Your task to perform on an android device: create a new album in the google photos Image 0: 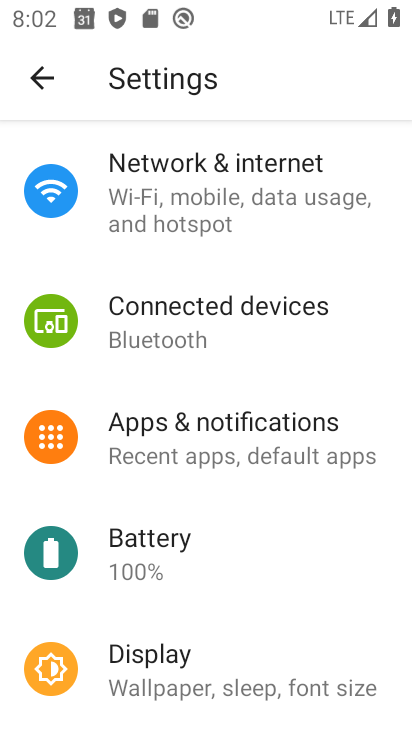
Step 0: press back button
Your task to perform on an android device: create a new album in the google photos Image 1: 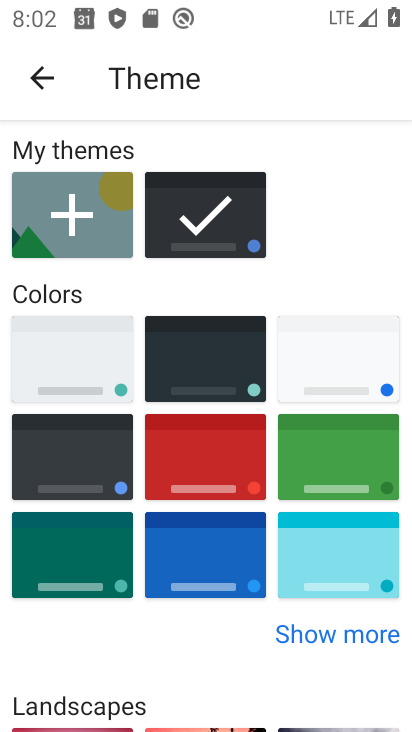
Step 1: press back button
Your task to perform on an android device: create a new album in the google photos Image 2: 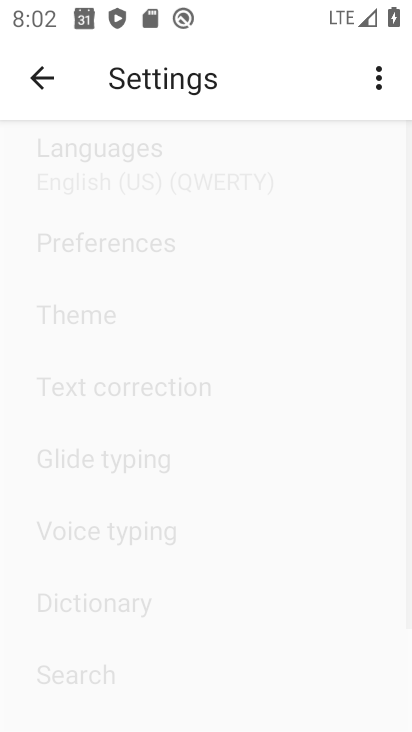
Step 2: press back button
Your task to perform on an android device: create a new album in the google photos Image 3: 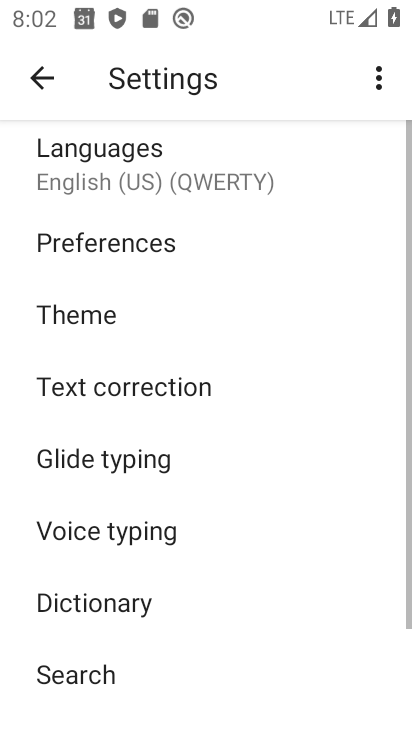
Step 3: press back button
Your task to perform on an android device: create a new album in the google photos Image 4: 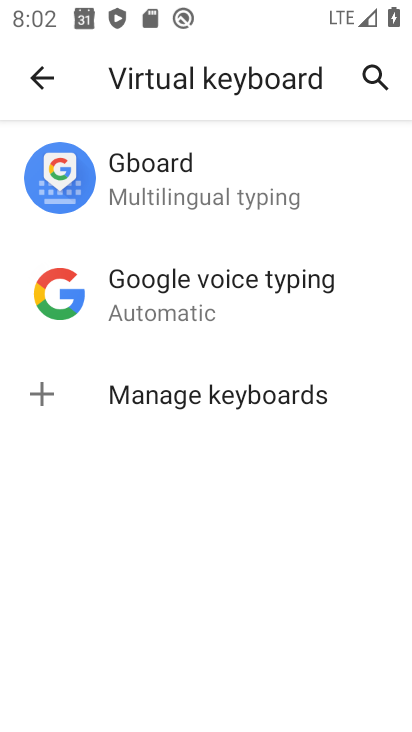
Step 4: press back button
Your task to perform on an android device: create a new album in the google photos Image 5: 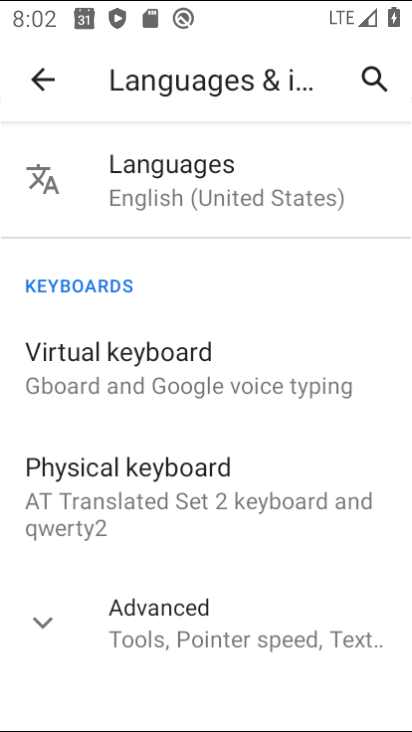
Step 5: press back button
Your task to perform on an android device: create a new album in the google photos Image 6: 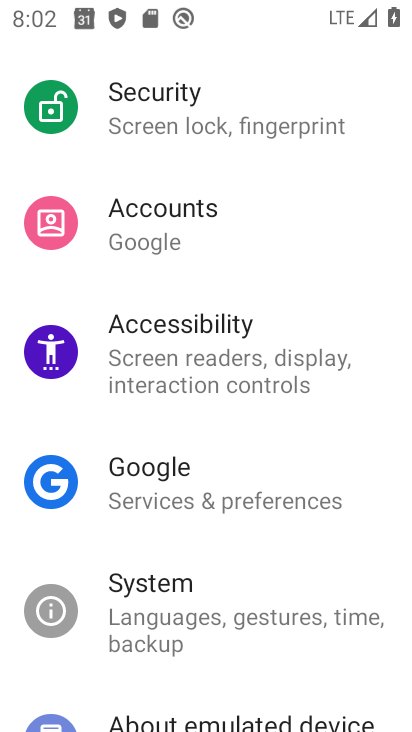
Step 6: press home button
Your task to perform on an android device: create a new album in the google photos Image 7: 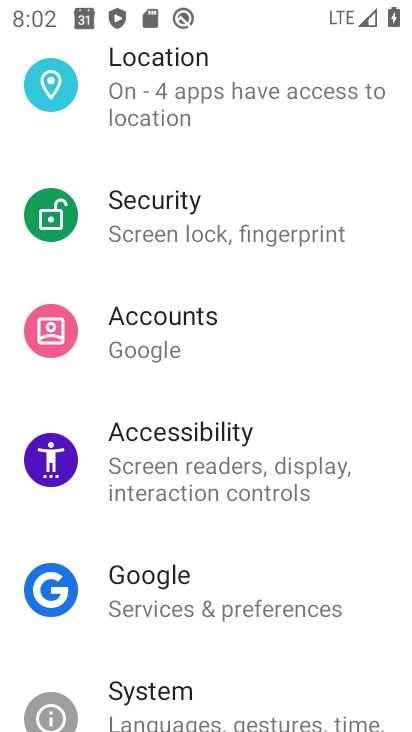
Step 7: press home button
Your task to perform on an android device: create a new album in the google photos Image 8: 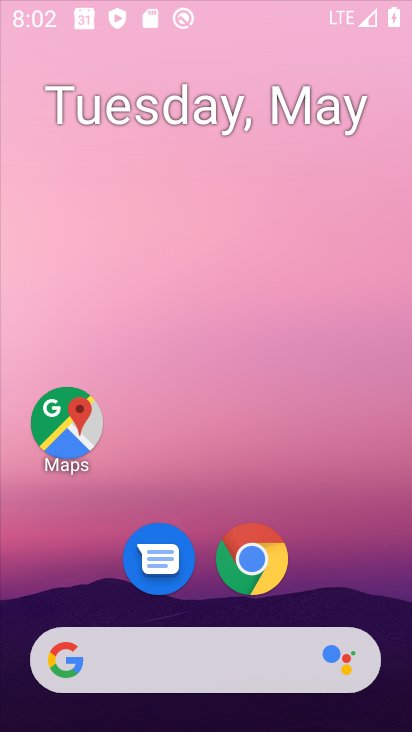
Step 8: press home button
Your task to perform on an android device: create a new album in the google photos Image 9: 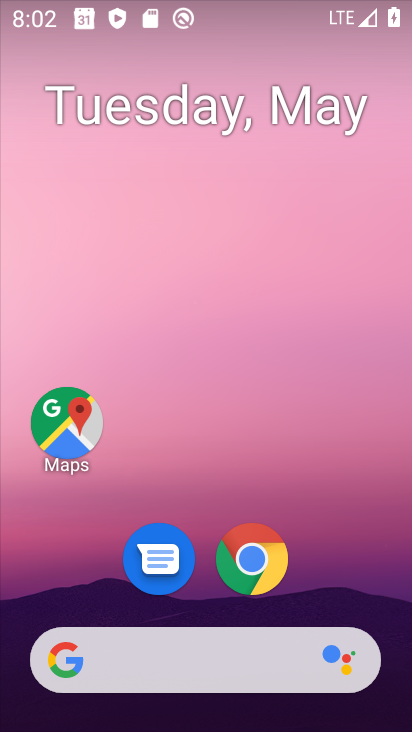
Step 9: press home button
Your task to perform on an android device: create a new album in the google photos Image 10: 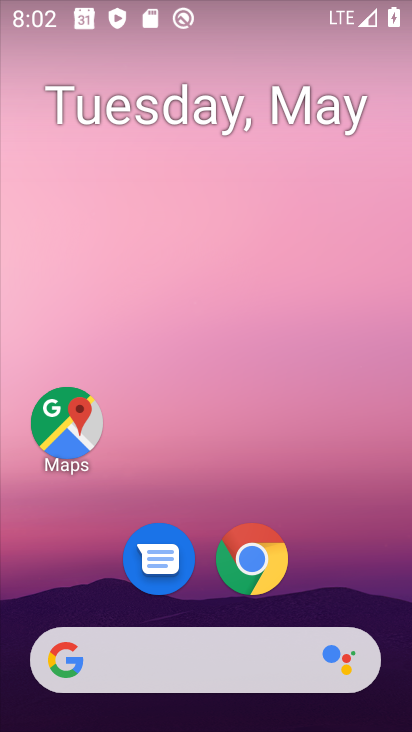
Step 10: drag from (383, 642) to (290, 297)
Your task to perform on an android device: create a new album in the google photos Image 11: 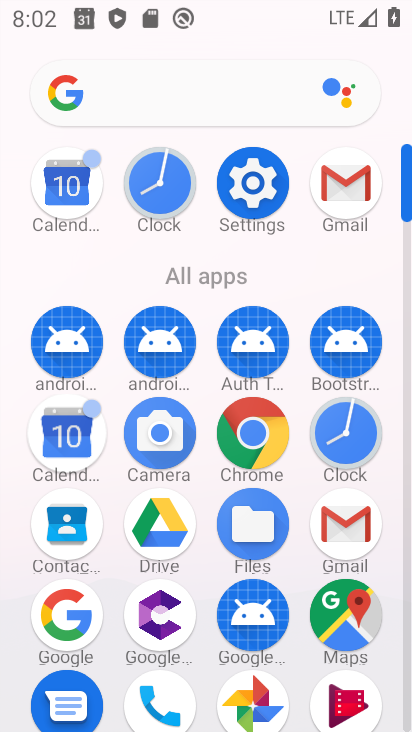
Step 11: click (252, 692)
Your task to perform on an android device: create a new album in the google photos Image 12: 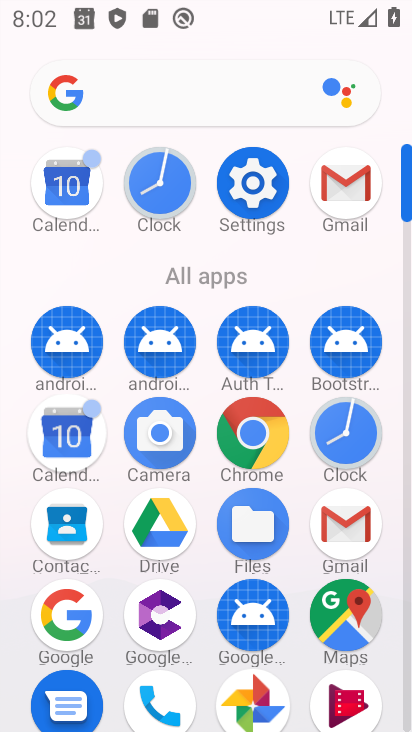
Step 12: click (255, 696)
Your task to perform on an android device: create a new album in the google photos Image 13: 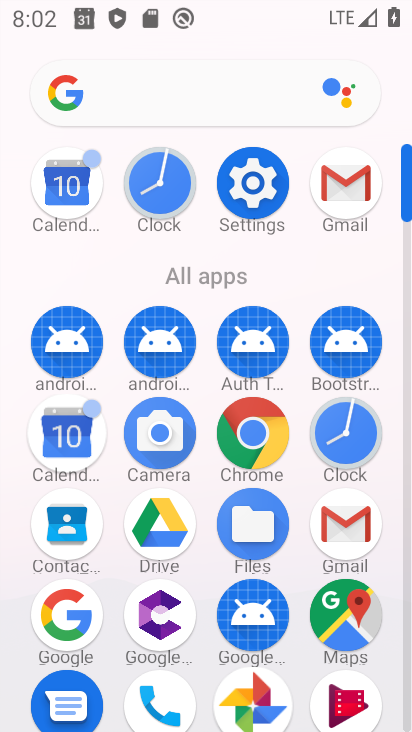
Step 13: click (254, 698)
Your task to perform on an android device: create a new album in the google photos Image 14: 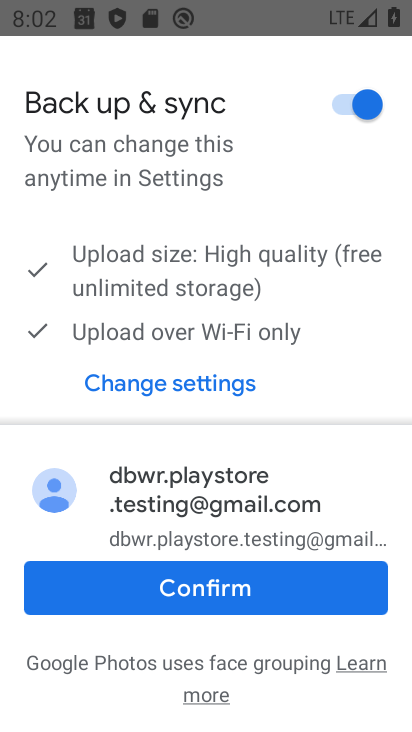
Step 14: click (223, 587)
Your task to perform on an android device: create a new album in the google photos Image 15: 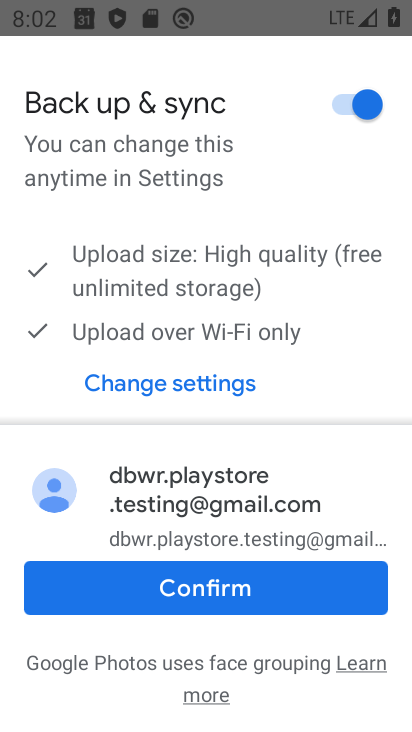
Step 15: click (223, 587)
Your task to perform on an android device: create a new album in the google photos Image 16: 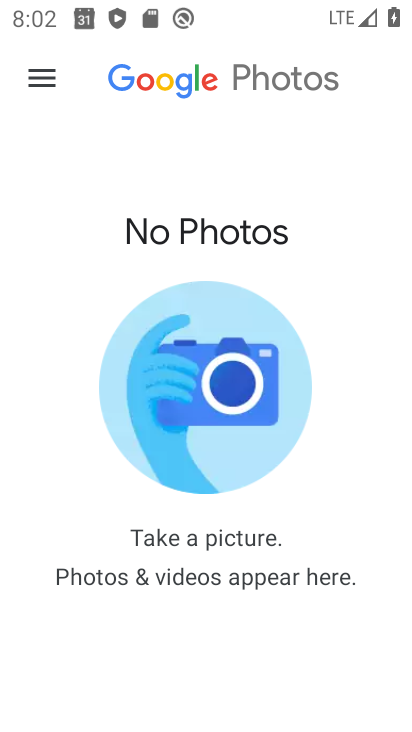
Step 16: click (223, 587)
Your task to perform on an android device: create a new album in the google photos Image 17: 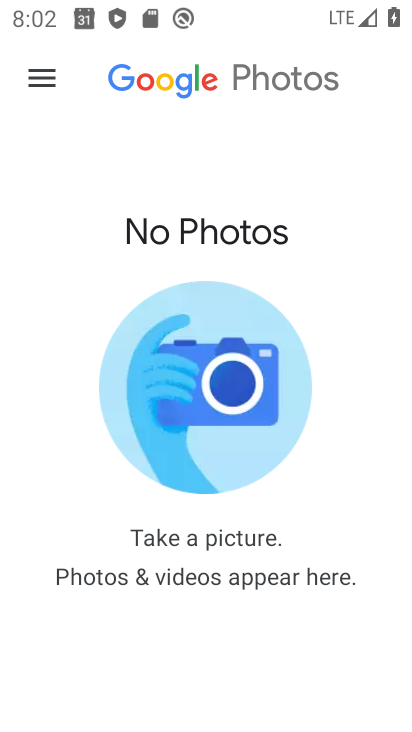
Step 17: click (223, 587)
Your task to perform on an android device: create a new album in the google photos Image 18: 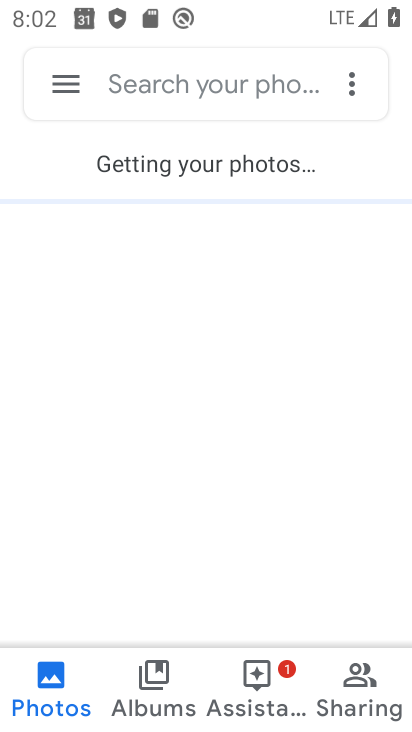
Step 18: click (160, 675)
Your task to perform on an android device: create a new album in the google photos Image 19: 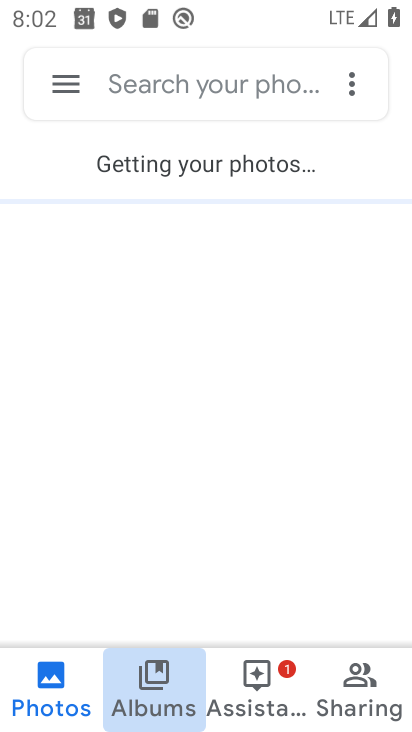
Step 19: click (159, 673)
Your task to perform on an android device: create a new album in the google photos Image 20: 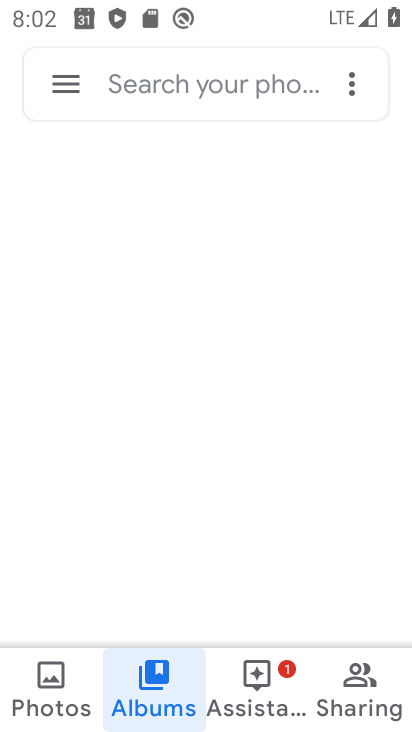
Step 20: click (159, 673)
Your task to perform on an android device: create a new album in the google photos Image 21: 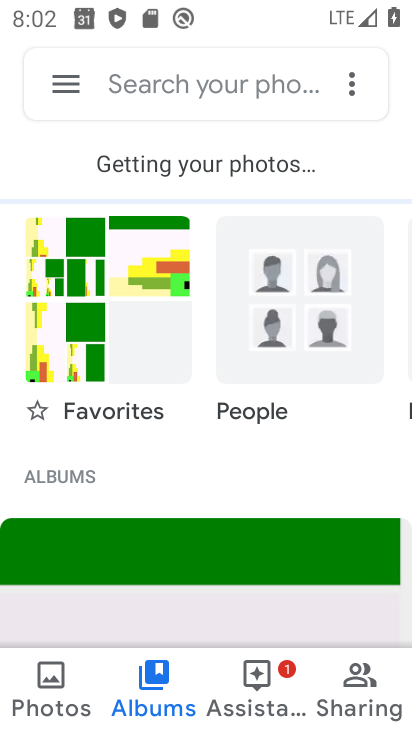
Step 21: drag from (216, 521) to (170, 246)
Your task to perform on an android device: create a new album in the google photos Image 22: 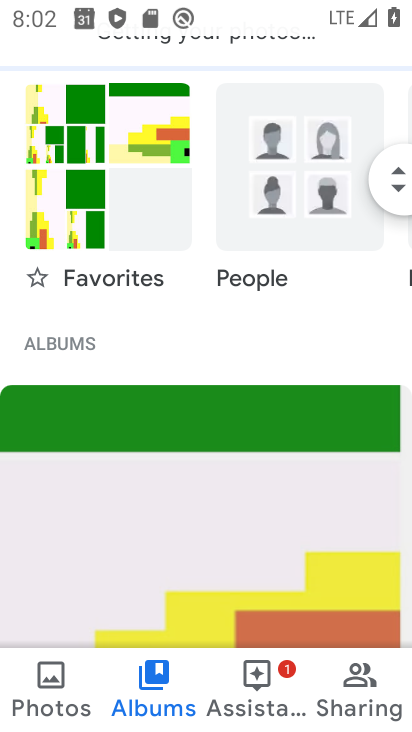
Step 22: drag from (233, 456) to (198, 175)
Your task to perform on an android device: create a new album in the google photos Image 23: 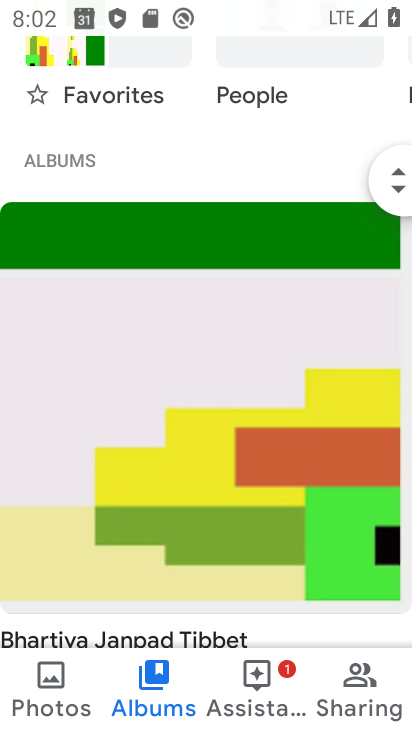
Step 23: drag from (222, 444) to (241, 127)
Your task to perform on an android device: create a new album in the google photos Image 24: 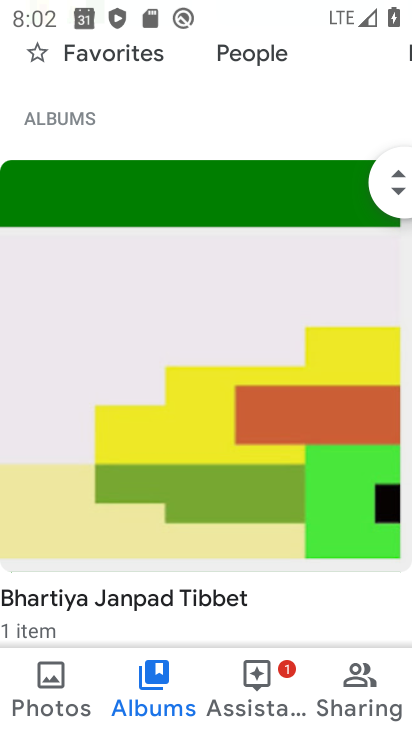
Step 24: drag from (219, 295) to (260, 611)
Your task to perform on an android device: create a new album in the google photos Image 25: 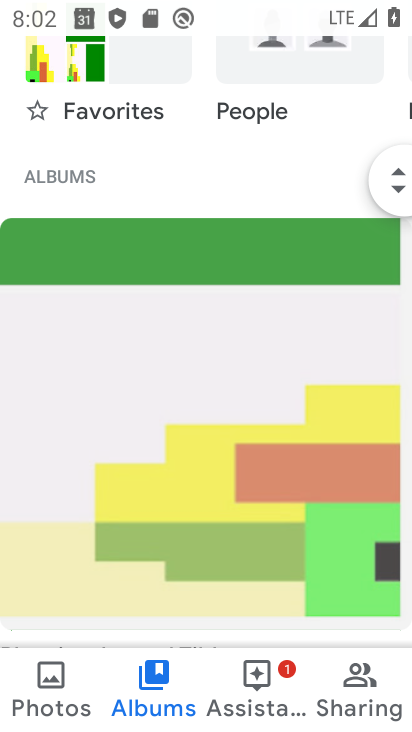
Step 25: drag from (158, 312) to (215, 637)
Your task to perform on an android device: create a new album in the google photos Image 26: 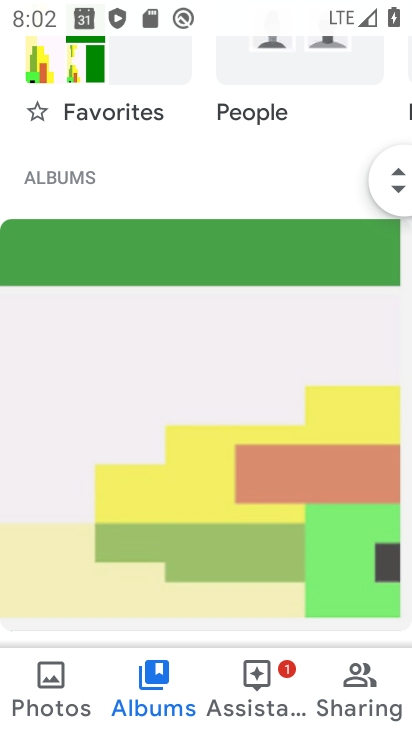
Step 26: drag from (248, 514) to (301, 485)
Your task to perform on an android device: create a new album in the google photos Image 27: 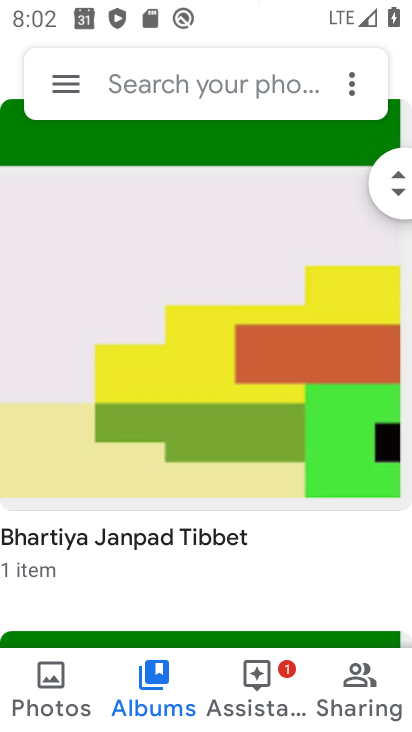
Step 27: click (358, 89)
Your task to perform on an android device: create a new album in the google photos Image 28: 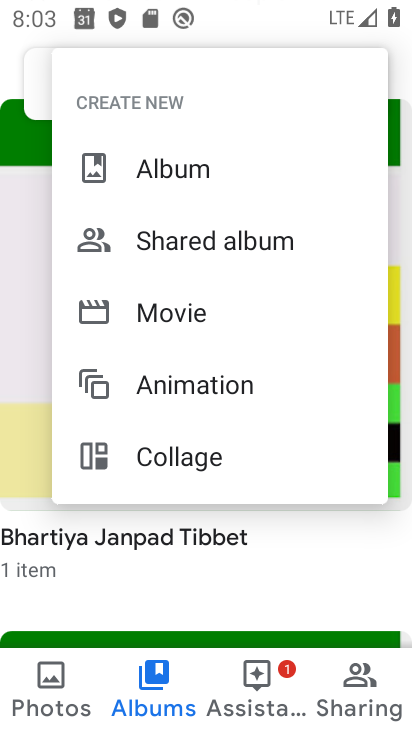
Step 28: click (164, 178)
Your task to perform on an android device: create a new album in the google photos Image 29: 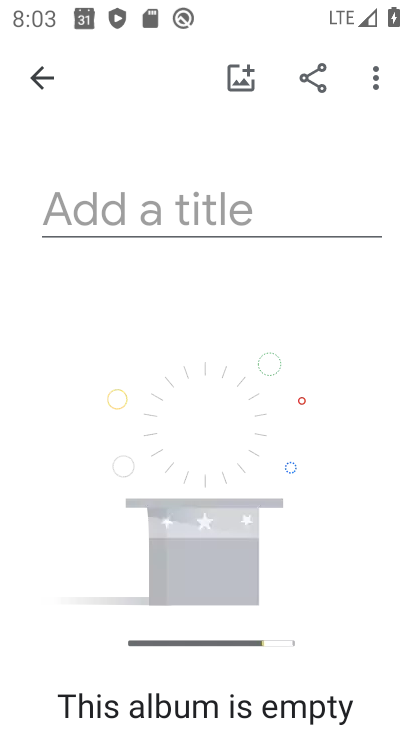
Step 29: click (91, 220)
Your task to perform on an android device: create a new album in the google photos Image 30: 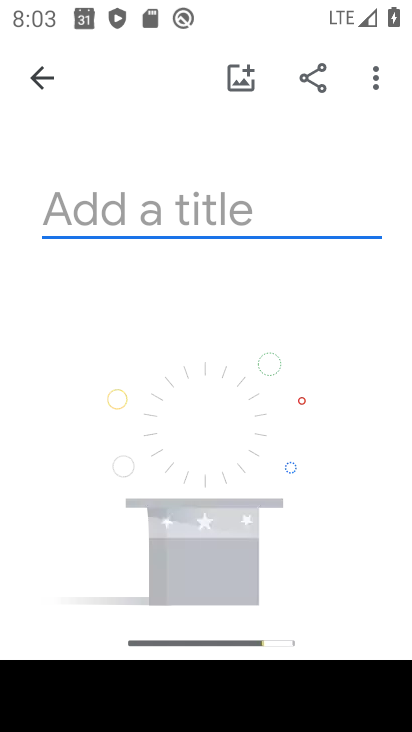
Step 30: type "bjp"
Your task to perform on an android device: create a new album in the google photos Image 31: 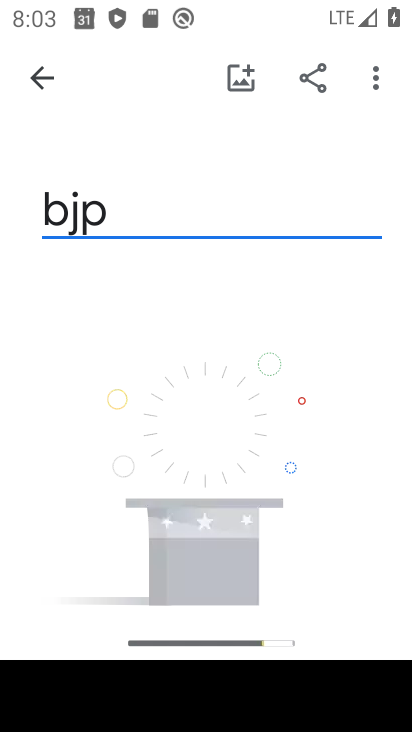
Step 31: drag from (226, 530) to (245, 204)
Your task to perform on an android device: create a new album in the google photos Image 32: 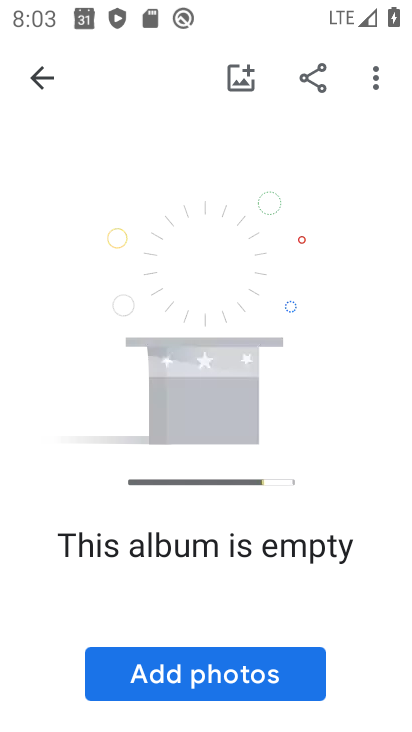
Step 32: drag from (220, 502) to (247, 233)
Your task to perform on an android device: create a new album in the google photos Image 33: 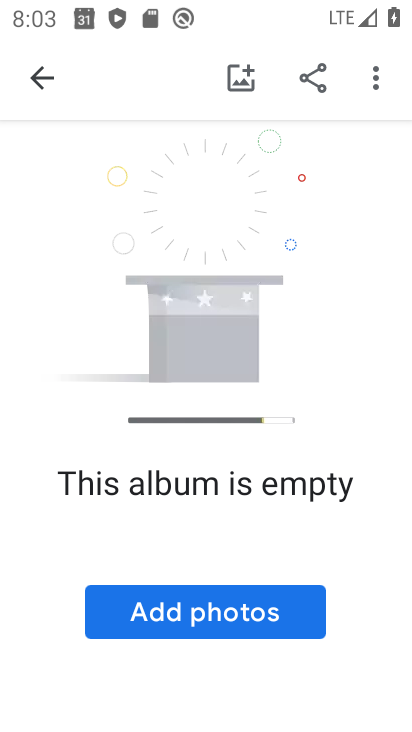
Step 33: click (229, 611)
Your task to perform on an android device: create a new album in the google photos Image 34: 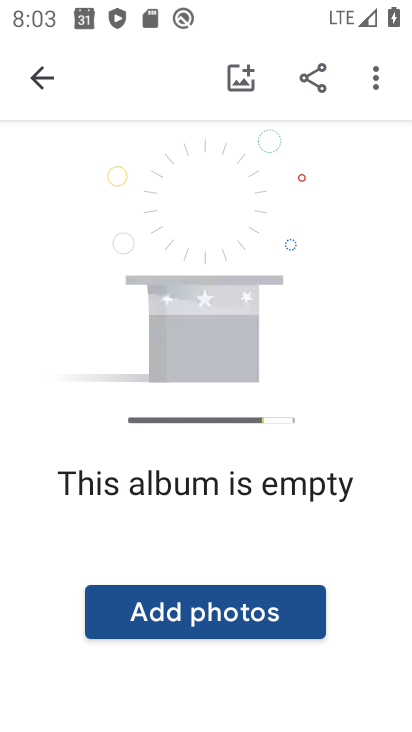
Step 34: click (227, 612)
Your task to perform on an android device: create a new album in the google photos Image 35: 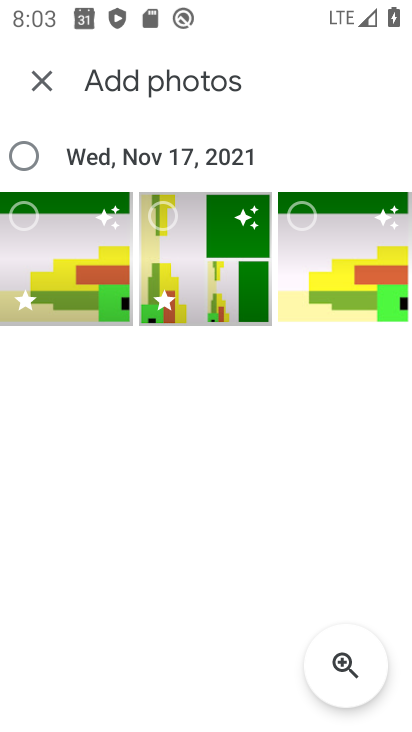
Step 35: click (21, 149)
Your task to perform on an android device: create a new album in the google photos Image 36: 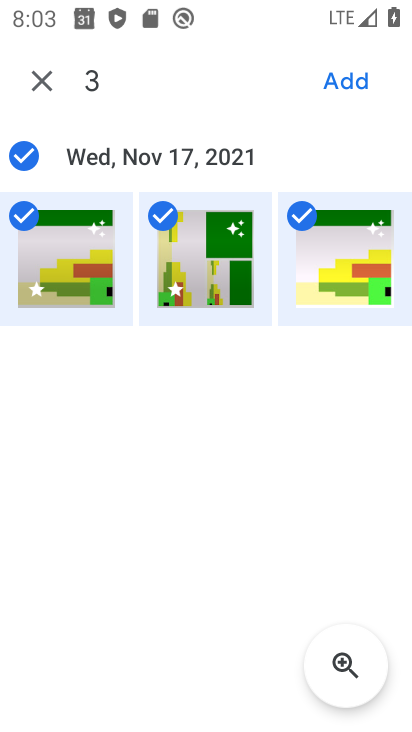
Step 36: click (345, 76)
Your task to perform on an android device: create a new album in the google photos Image 37: 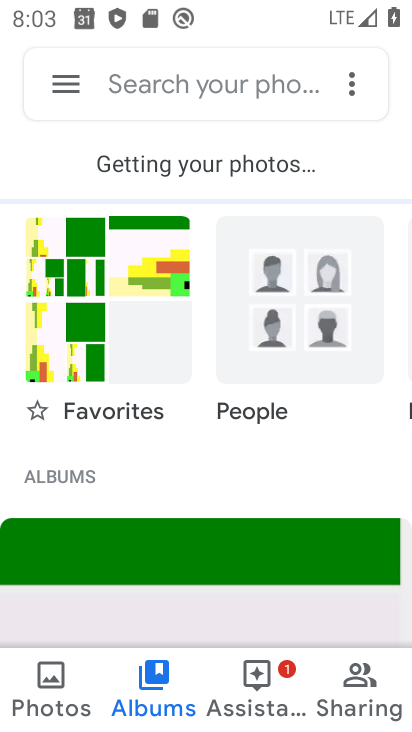
Step 37: task complete